Your task to perform on an android device: Search for razer kraken on bestbuy, select the first entry, and add it to the cart. Image 0: 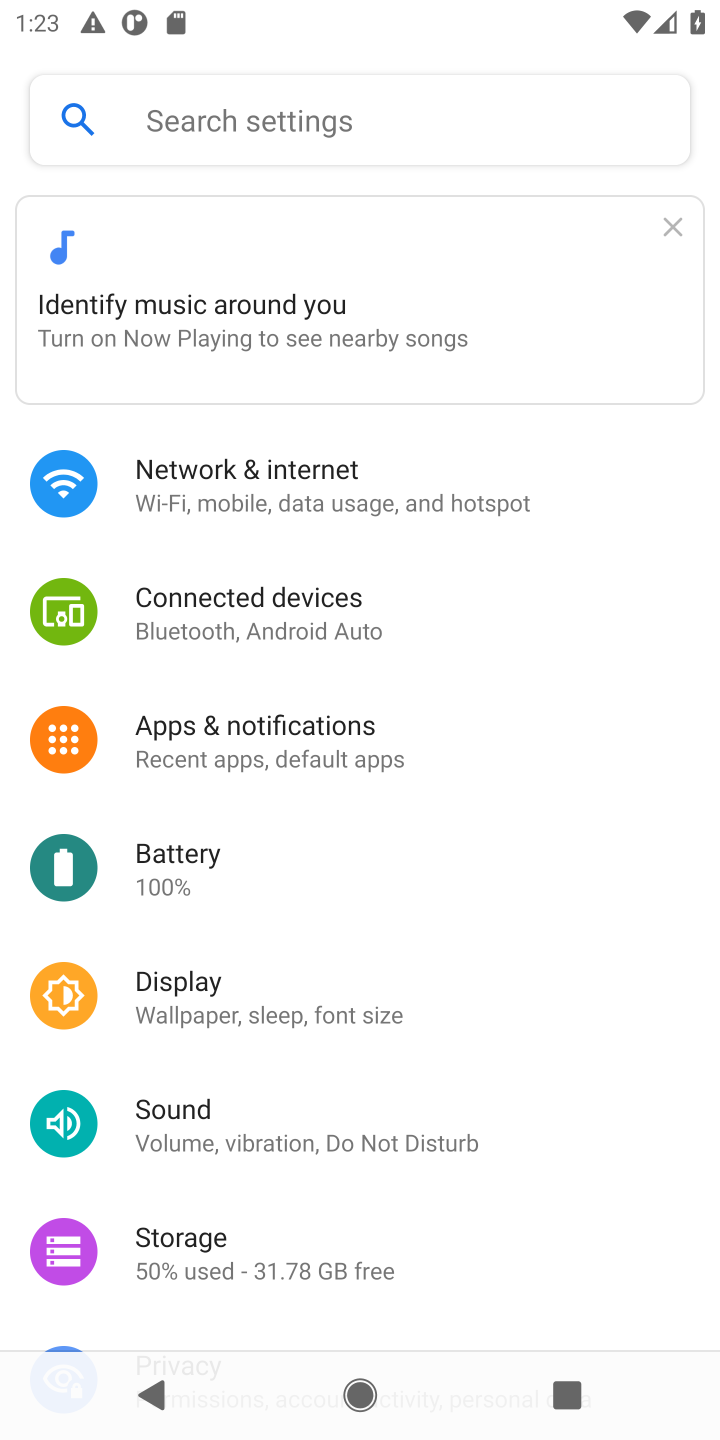
Step 0: press home button
Your task to perform on an android device: Search for razer kraken on bestbuy, select the first entry, and add it to the cart. Image 1: 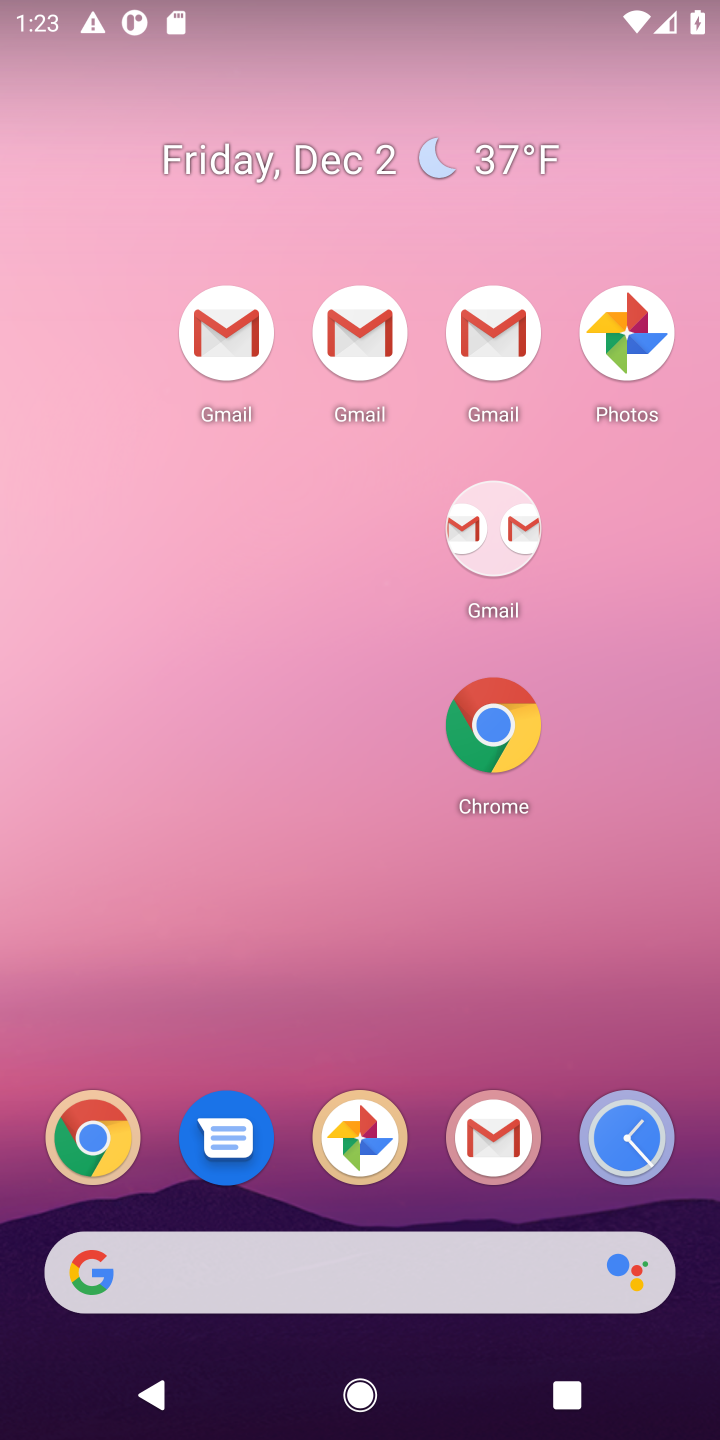
Step 1: drag from (425, 1176) to (484, 162)
Your task to perform on an android device: Search for razer kraken on bestbuy, select the first entry, and add it to the cart. Image 2: 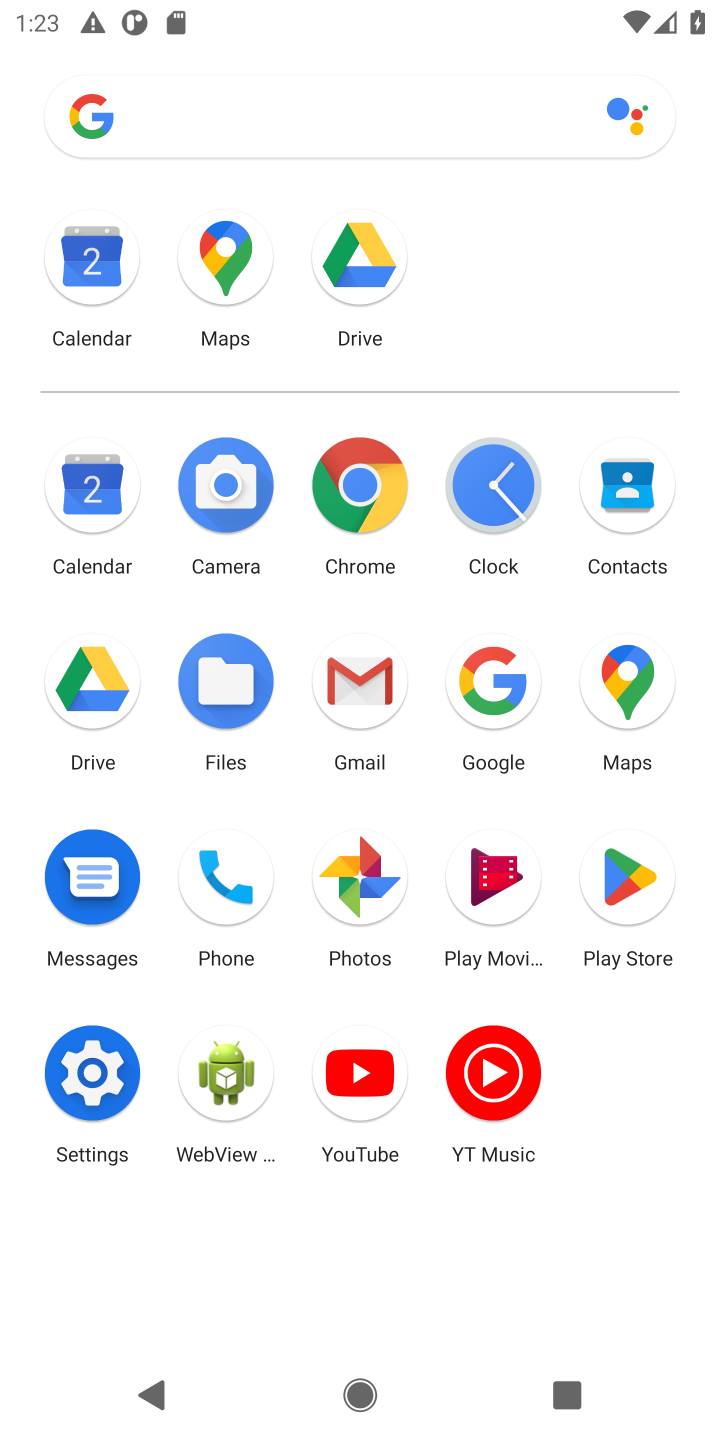
Step 2: click (490, 705)
Your task to perform on an android device: Search for razer kraken on bestbuy, select the first entry, and add it to the cart. Image 3: 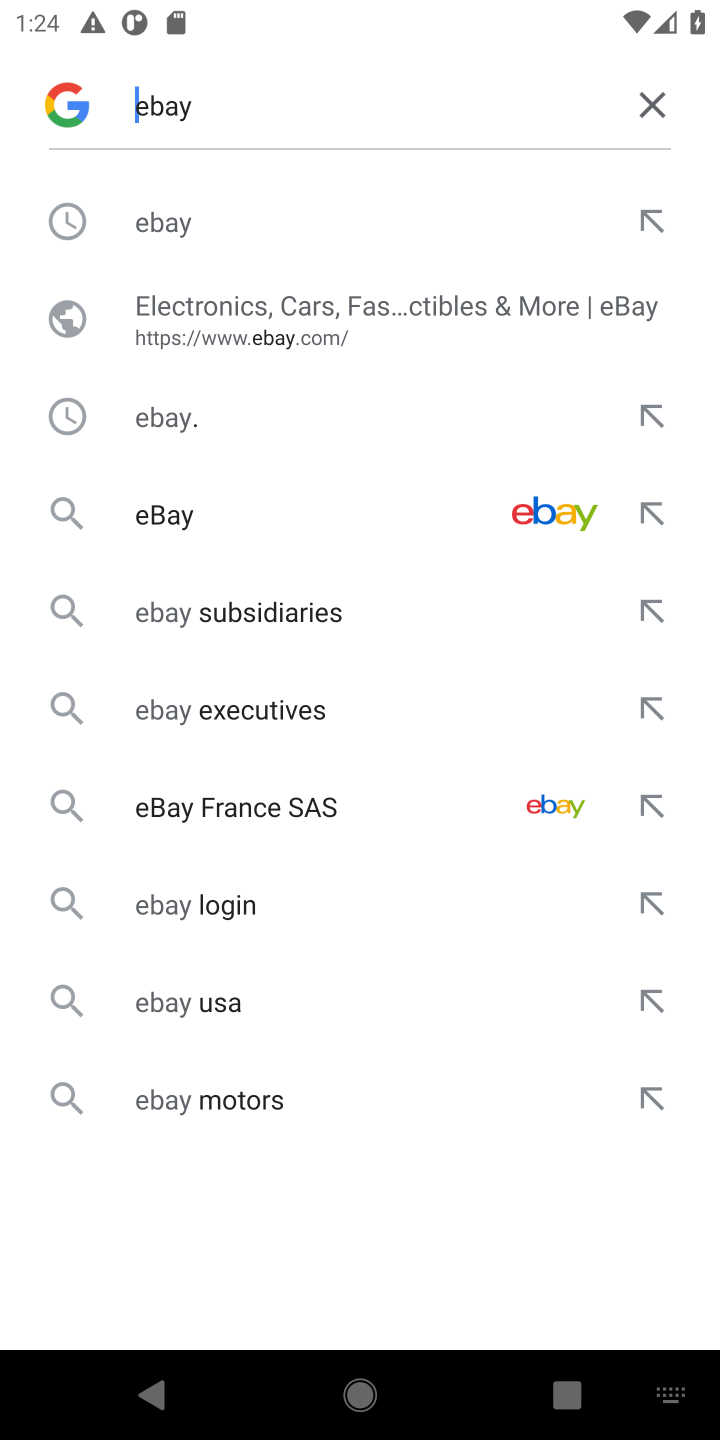
Step 3: click (666, 117)
Your task to perform on an android device: Search for razer kraken on bestbuy, select the first entry, and add it to the cart. Image 4: 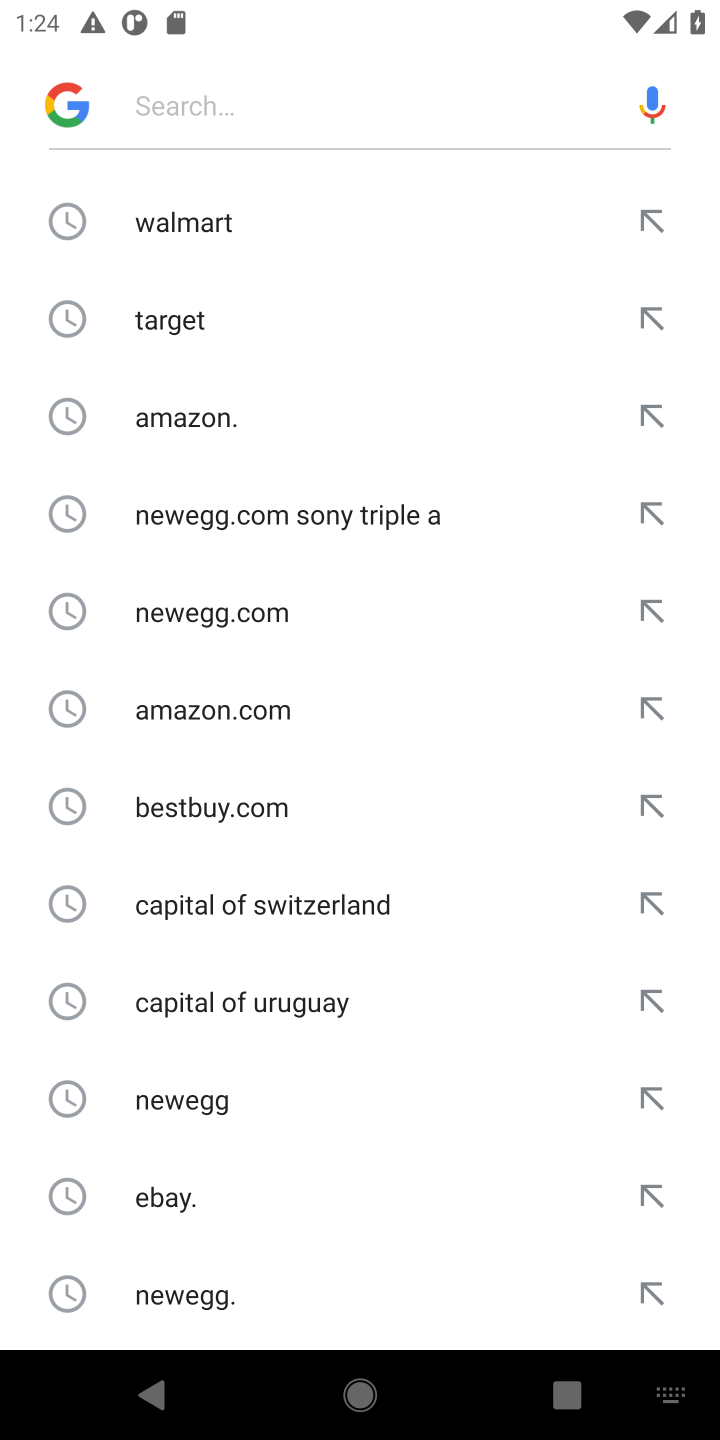
Step 4: type "bestbuy"
Your task to perform on an android device: Search for razer kraken on bestbuy, select the first entry, and add it to the cart. Image 5: 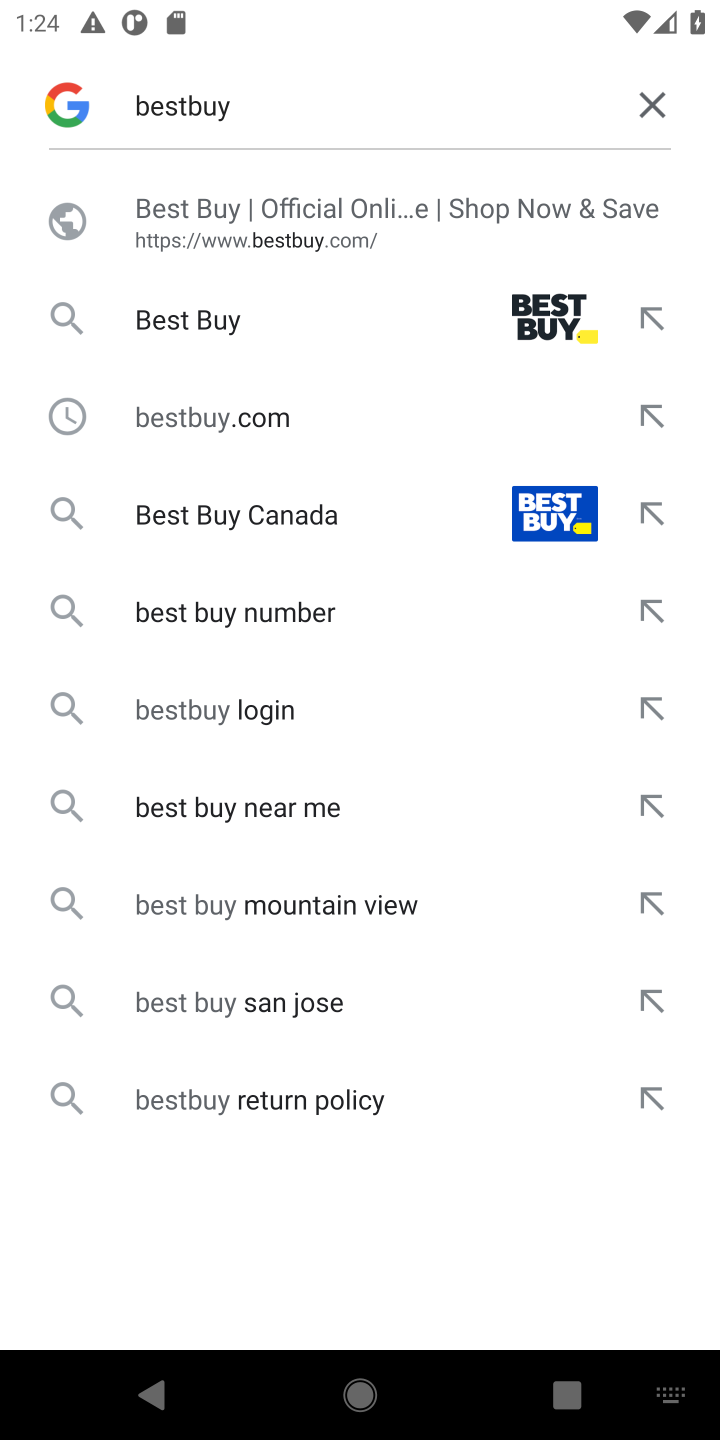
Step 5: click (287, 224)
Your task to perform on an android device: Search for razer kraken on bestbuy, select the first entry, and add it to the cart. Image 6: 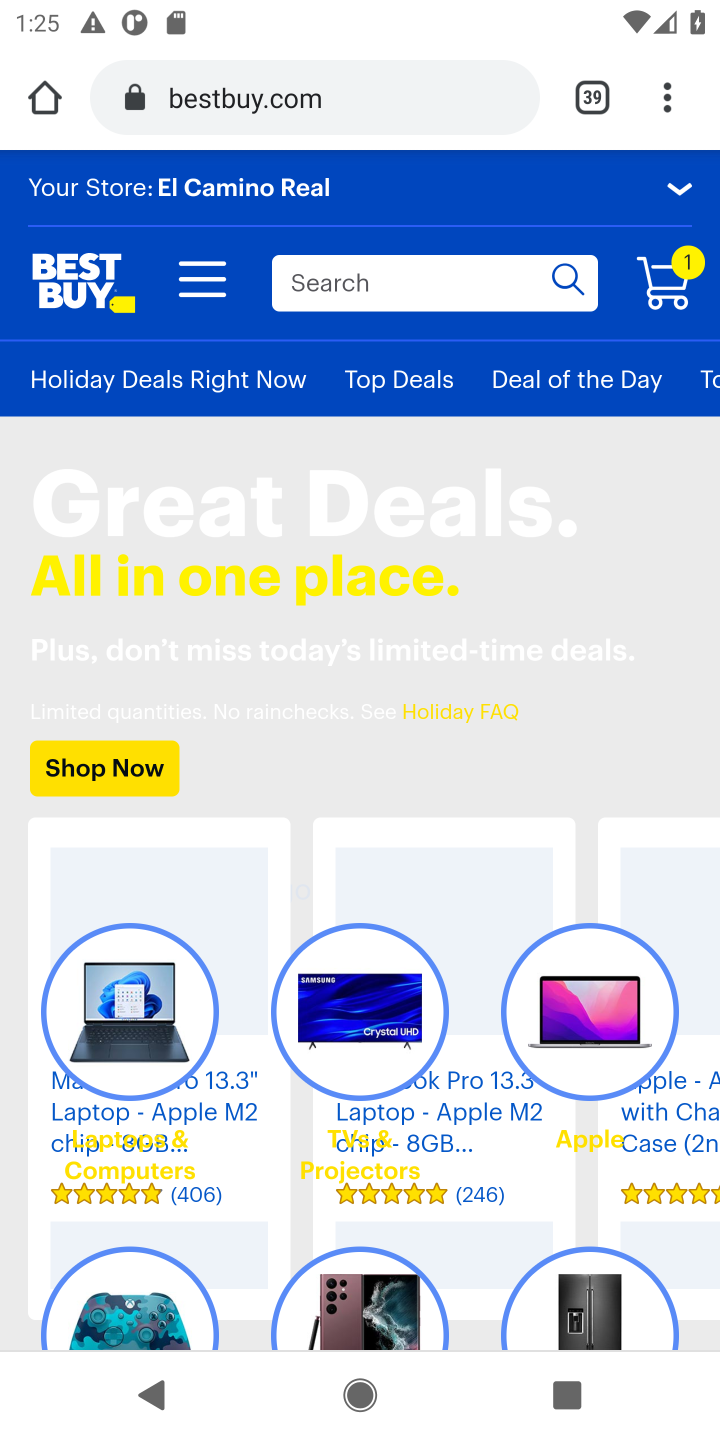
Step 6: click (322, 309)
Your task to perform on an android device: Search for razer kraken on bestbuy, select the first entry, and add it to the cart. Image 7: 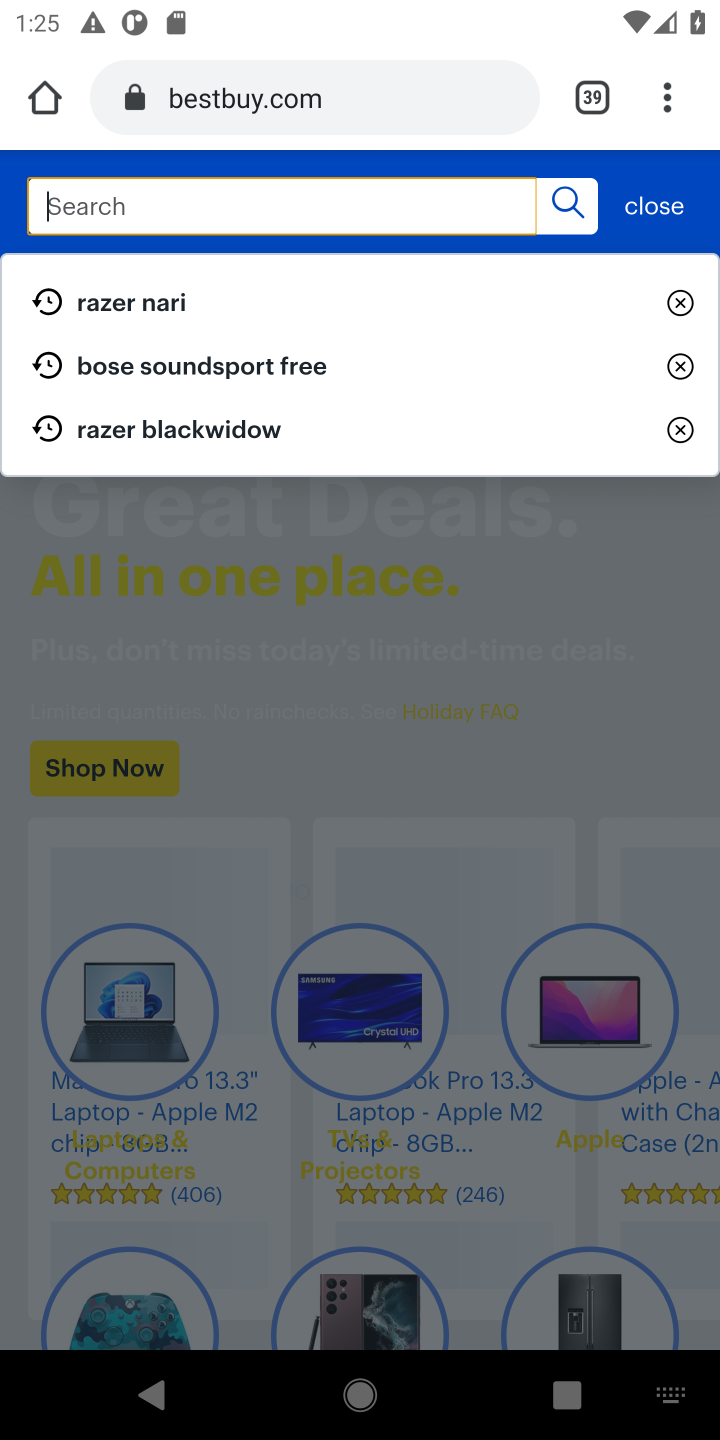
Step 7: type "razer kraken"
Your task to perform on an android device: Search for razer kraken on bestbuy, select the first entry, and add it to the cart. Image 8: 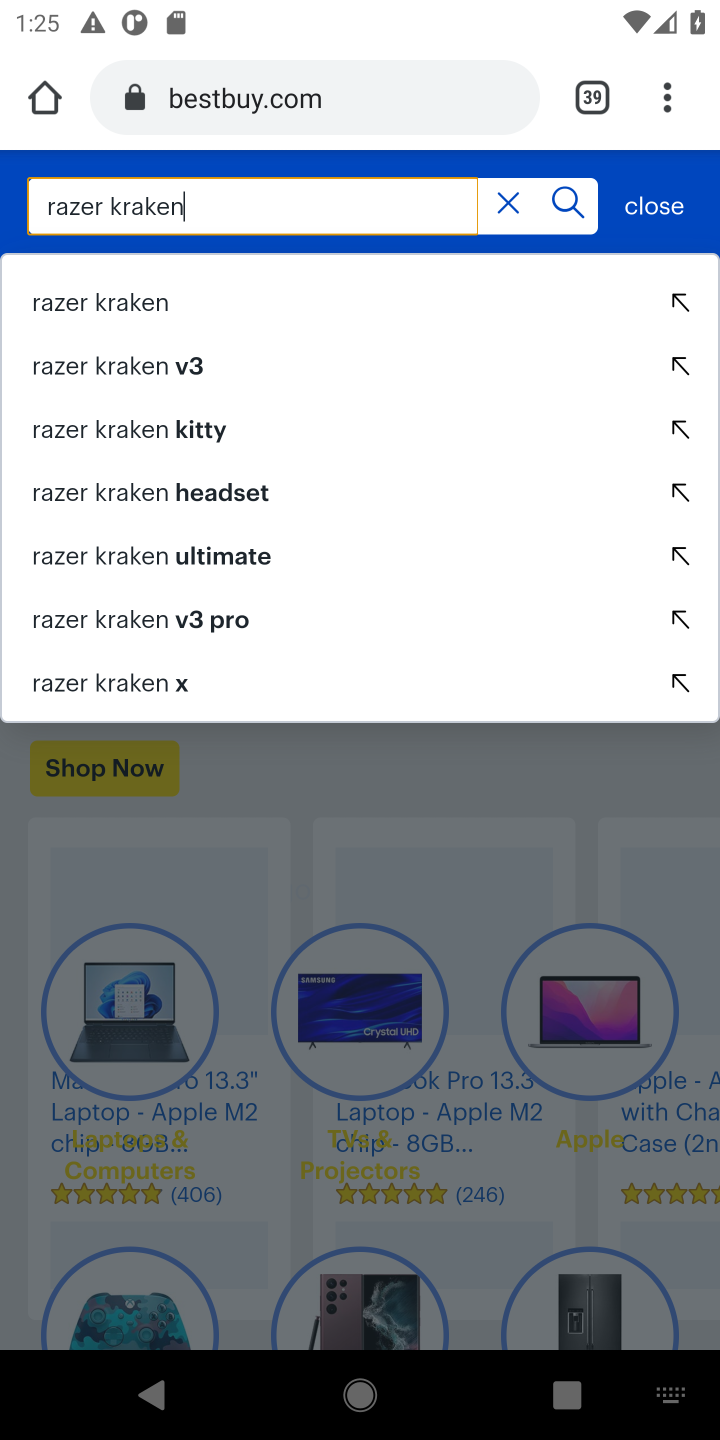
Step 8: click (86, 306)
Your task to perform on an android device: Search for razer kraken on bestbuy, select the first entry, and add it to the cart. Image 9: 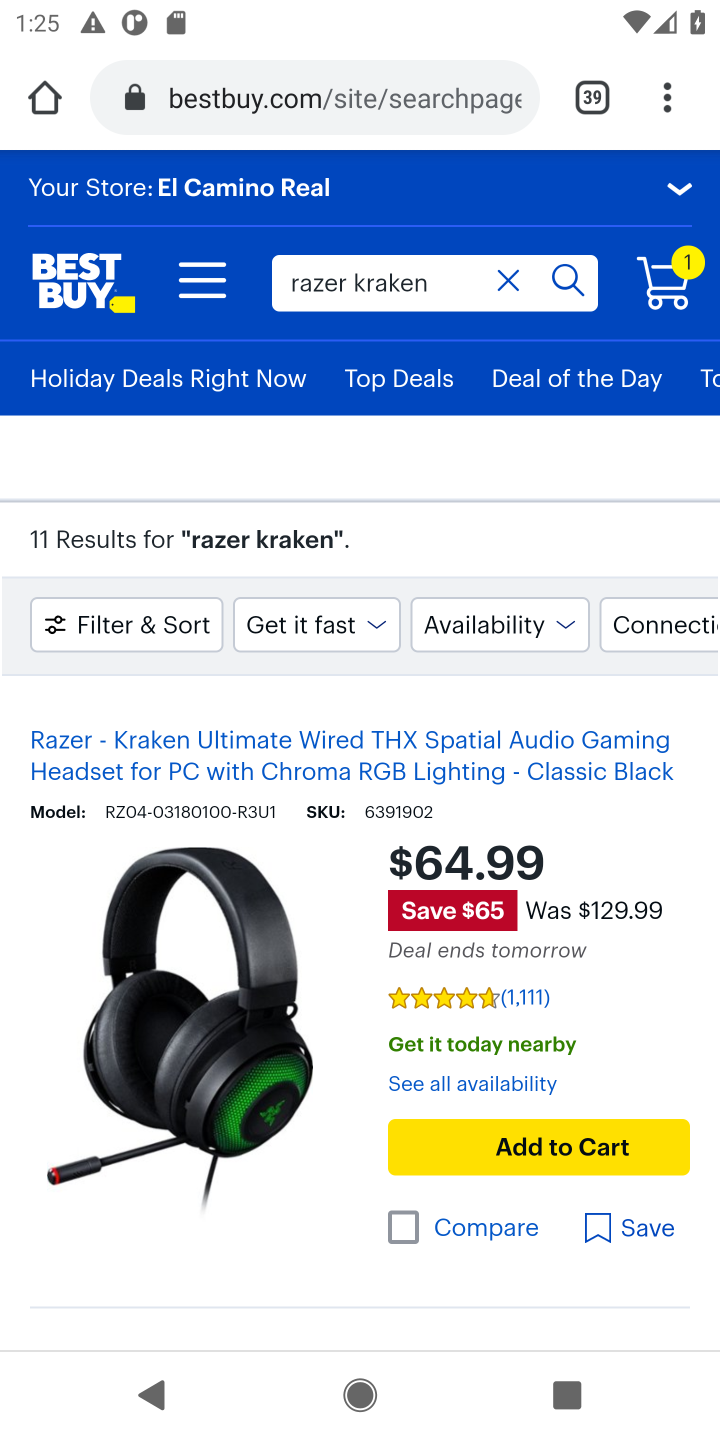
Step 9: click (248, 924)
Your task to perform on an android device: Search for razer kraken on bestbuy, select the first entry, and add it to the cart. Image 10: 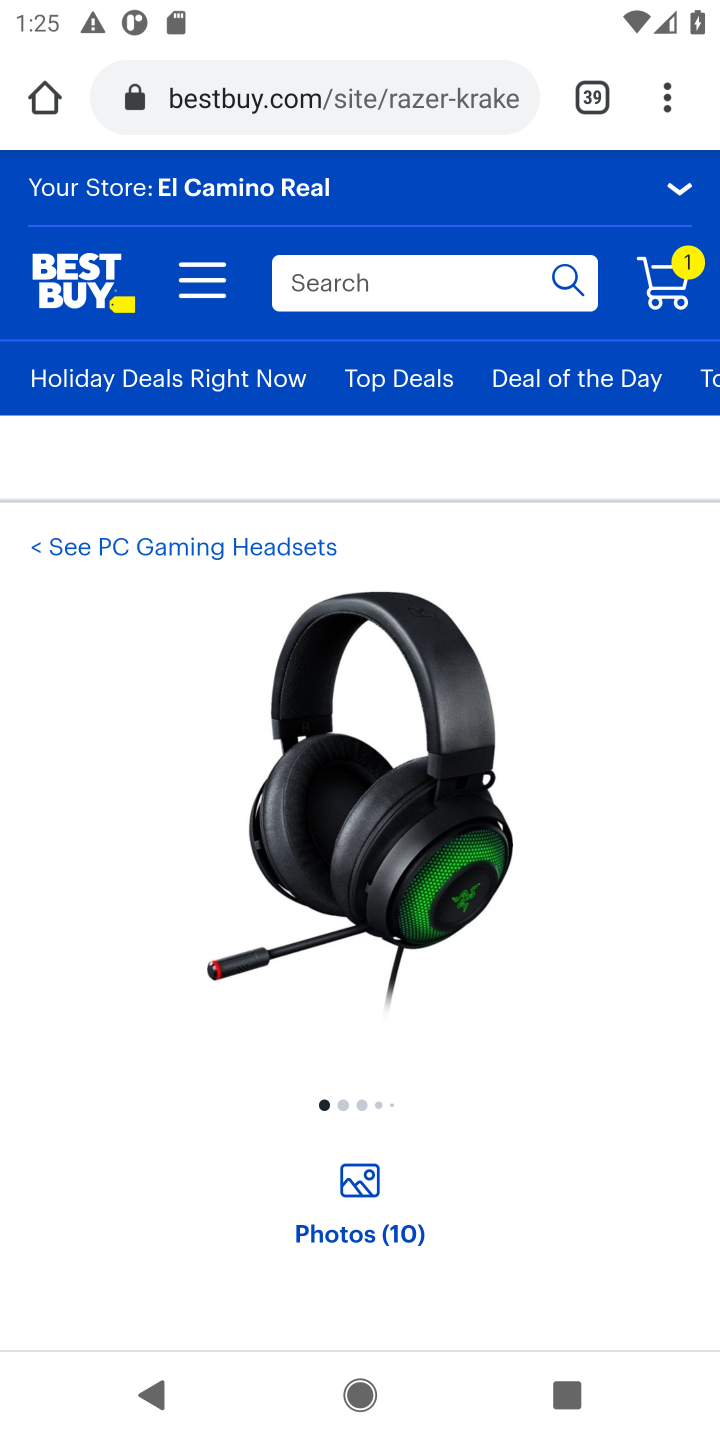
Step 10: drag from (498, 1226) to (471, 749)
Your task to perform on an android device: Search for razer kraken on bestbuy, select the first entry, and add it to the cart. Image 11: 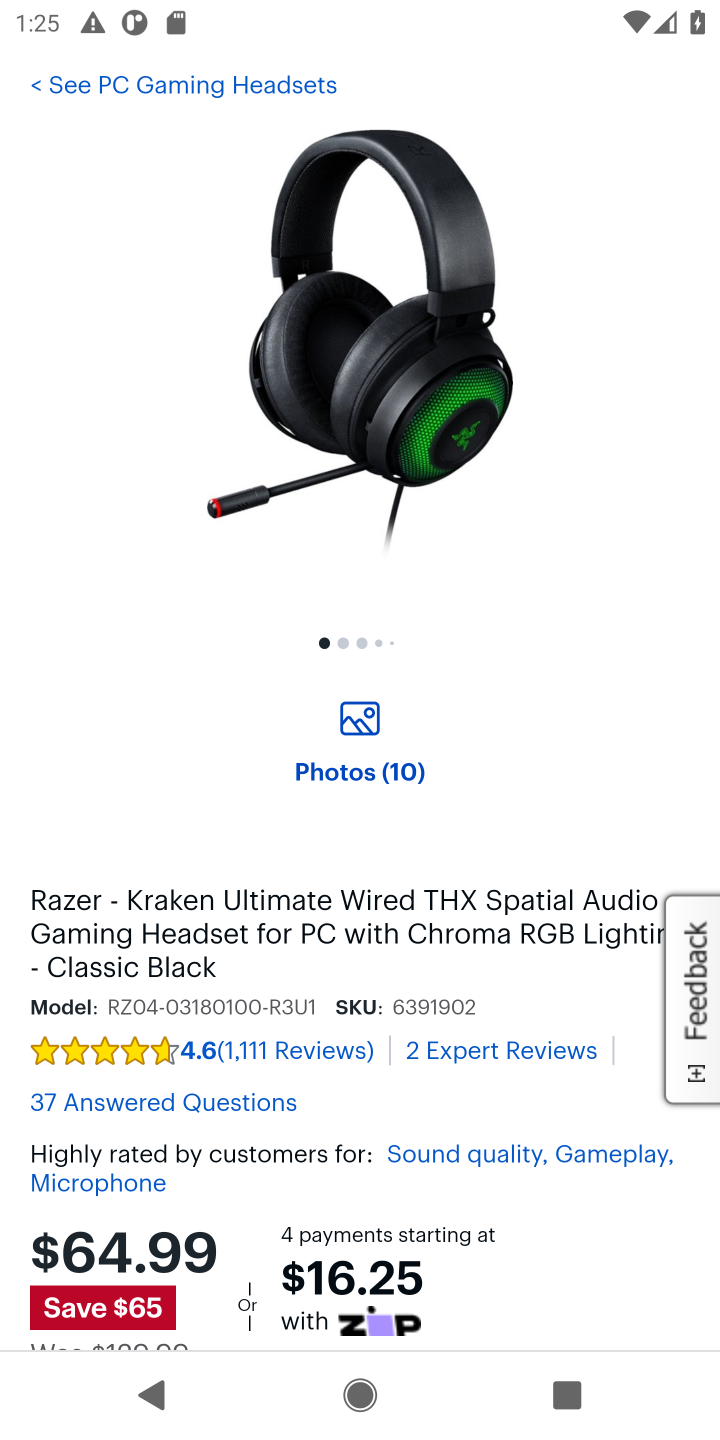
Step 11: drag from (575, 1161) to (565, 291)
Your task to perform on an android device: Search for razer kraken on bestbuy, select the first entry, and add it to the cart. Image 12: 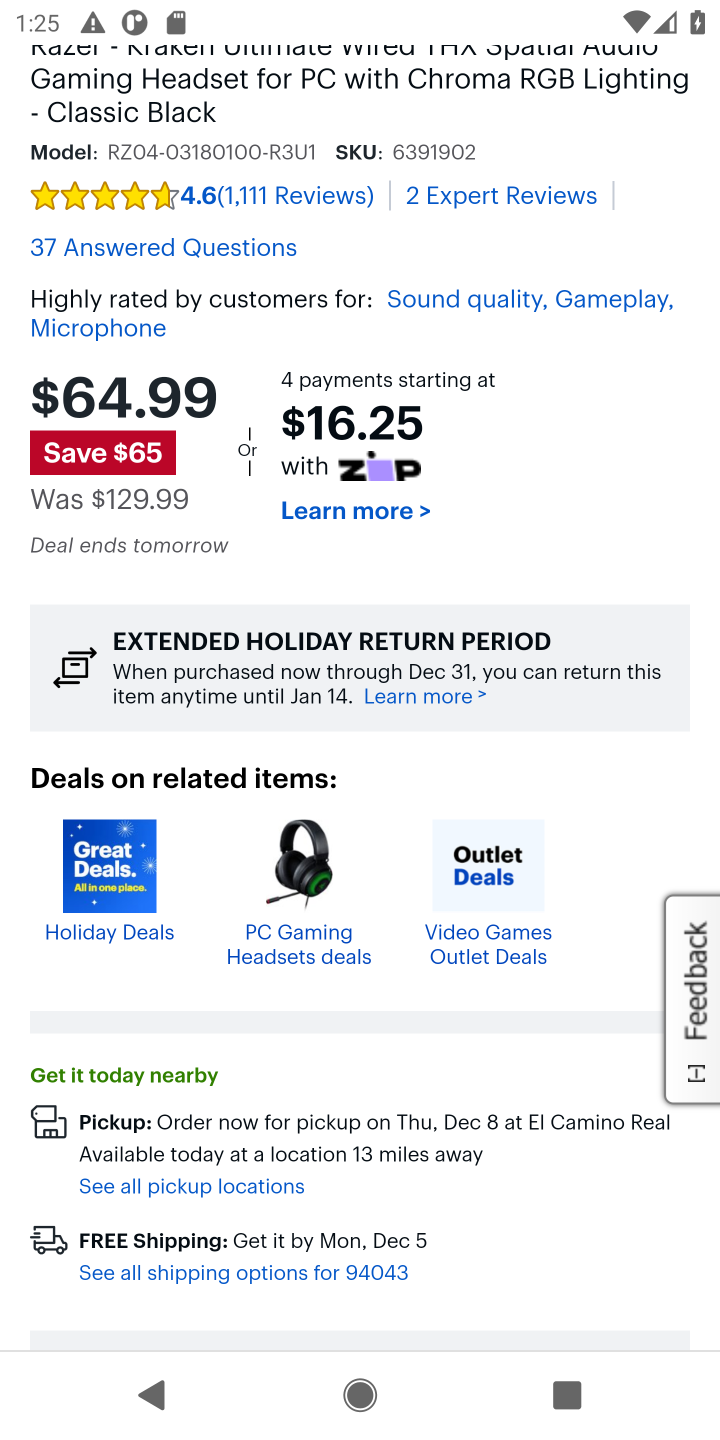
Step 12: drag from (534, 1003) to (555, 393)
Your task to perform on an android device: Search for razer kraken on bestbuy, select the first entry, and add it to the cart. Image 13: 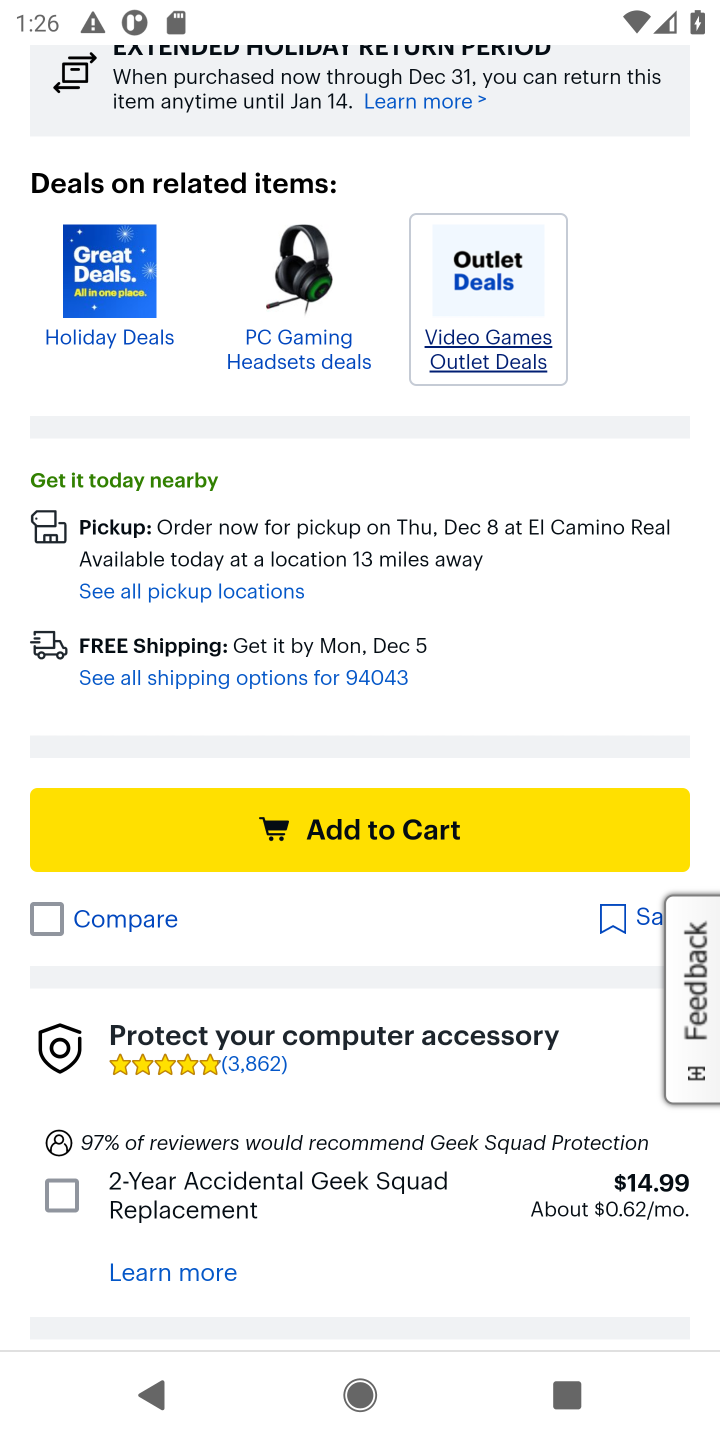
Step 13: click (357, 833)
Your task to perform on an android device: Search for razer kraken on bestbuy, select the first entry, and add it to the cart. Image 14: 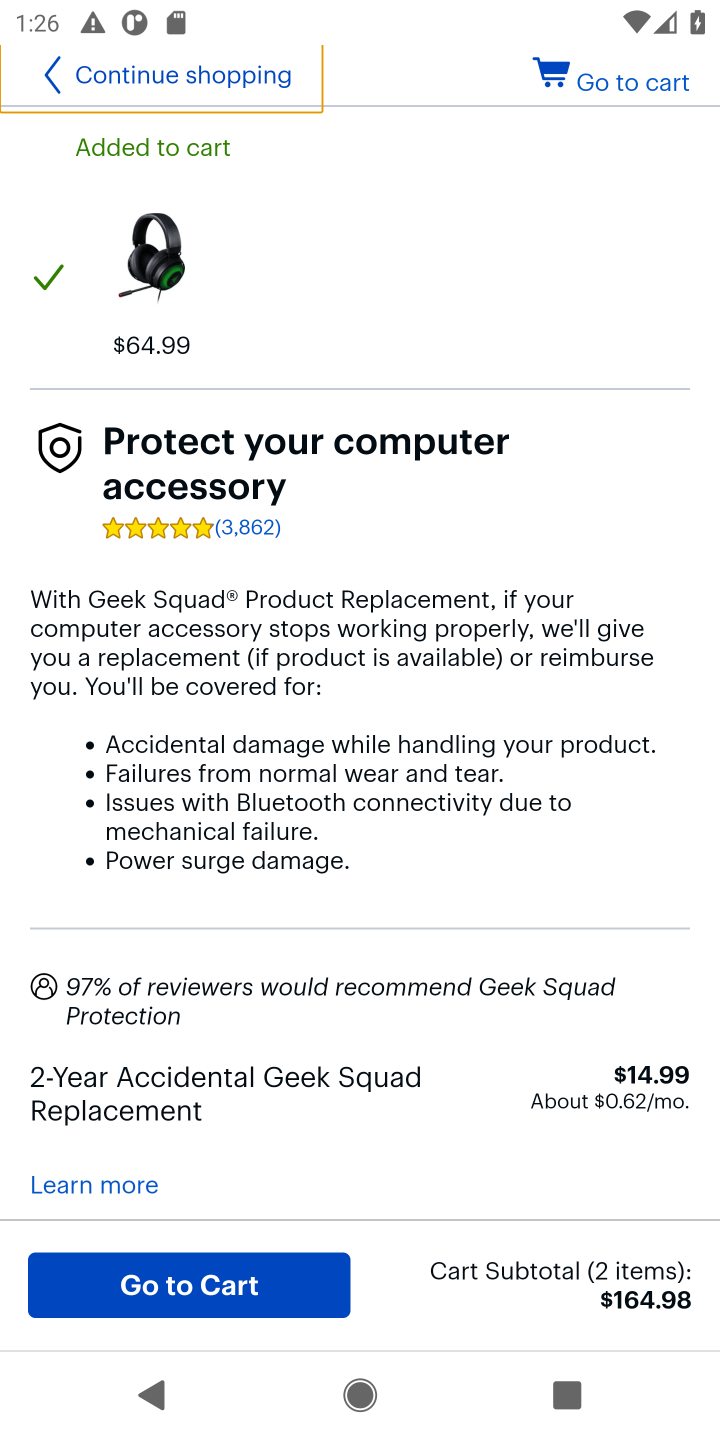
Step 14: task complete